Your task to perform on an android device: check data usage Image 0: 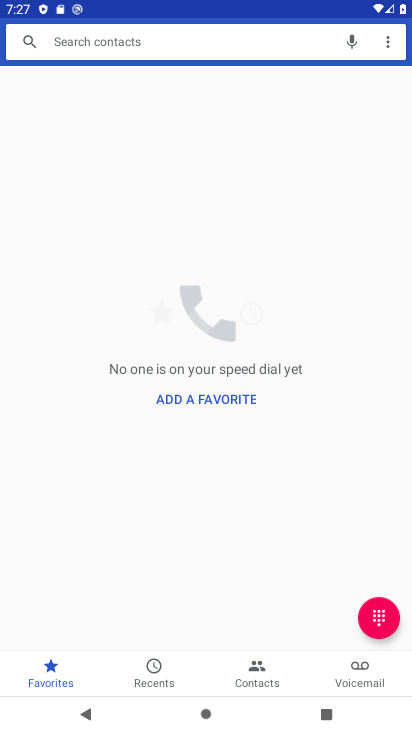
Step 0: press home button
Your task to perform on an android device: check data usage Image 1: 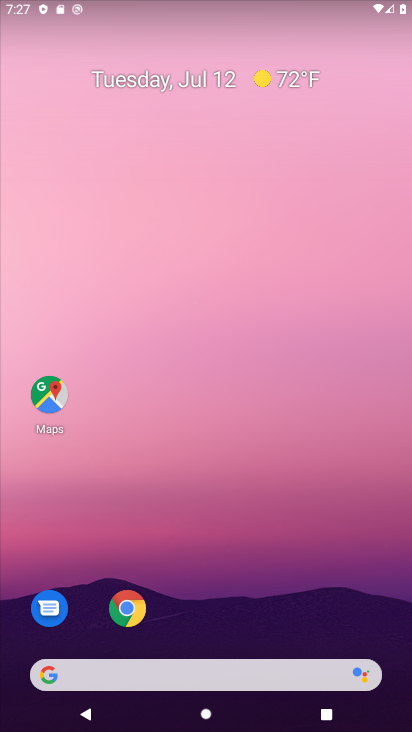
Step 1: drag from (374, 607) to (372, 100)
Your task to perform on an android device: check data usage Image 2: 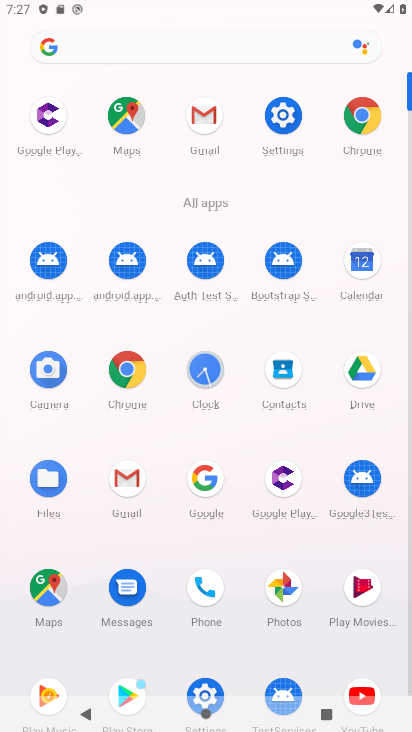
Step 2: click (283, 112)
Your task to perform on an android device: check data usage Image 3: 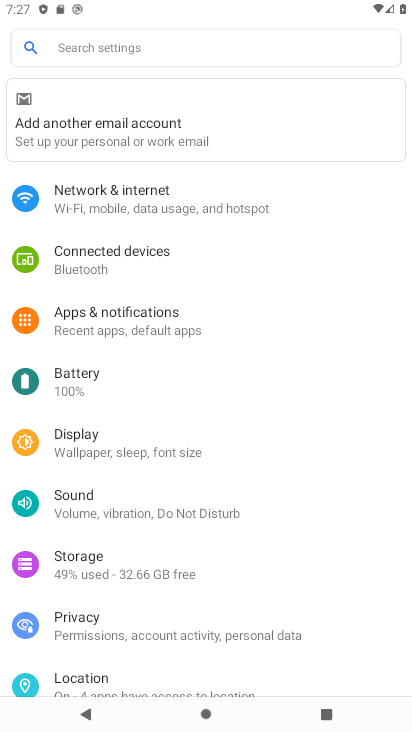
Step 3: drag from (364, 441) to (361, 371)
Your task to perform on an android device: check data usage Image 4: 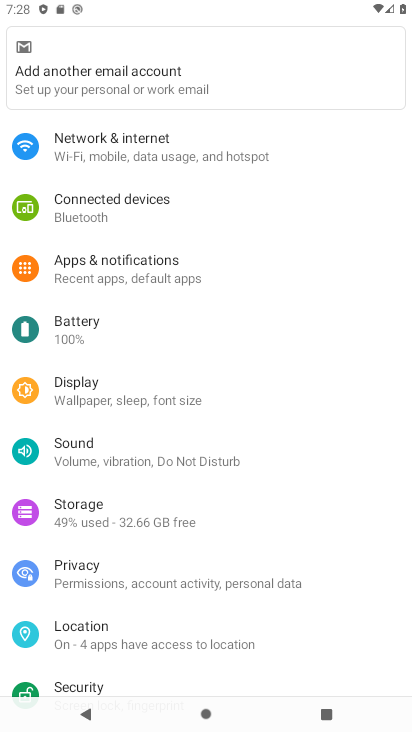
Step 4: drag from (349, 446) to (353, 354)
Your task to perform on an android device: check data usage Image 5: 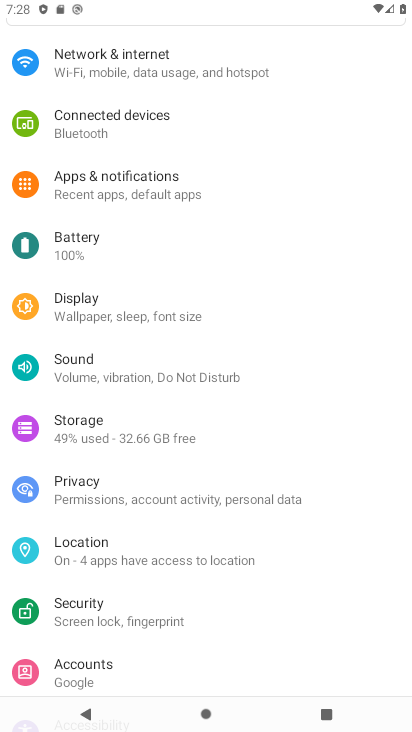
Step 5: drag from (353, 487) to (340, 370)
Your task to perform on an android device: check data usage Image 6: 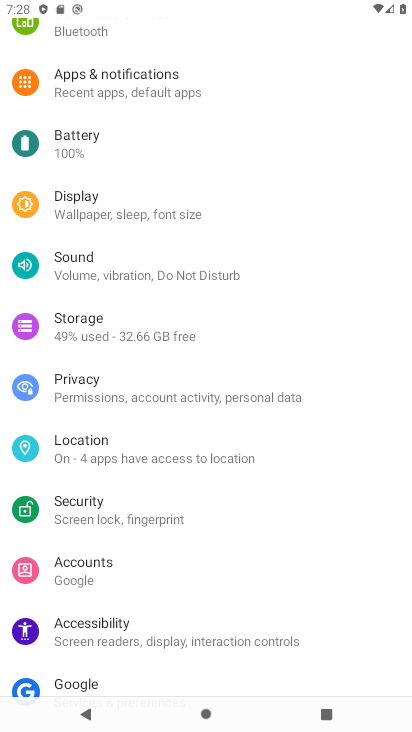
Step 6: drag from (338, 510) to (344, 352)
Your task to perform on an android device: check data usage Image 7: 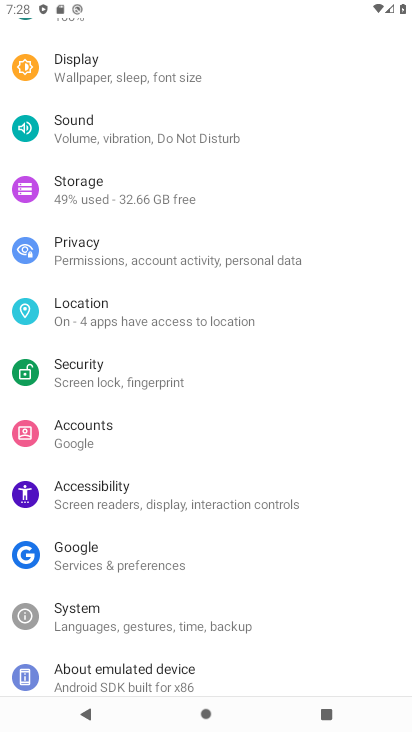
Step 7: drag from (348, 564) to (343, 409)
Your task to perform on an android device: check data usage Image 8: 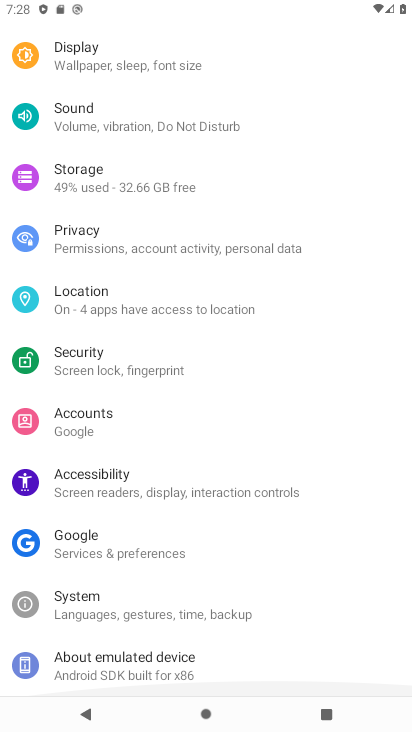
Step 8: drag from (336, 347) to (350, 458)
Your task to perform on an android device: check data usage Image 9: 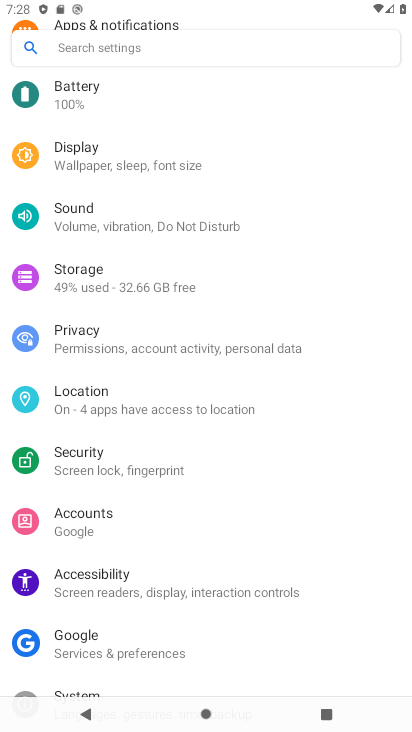
Step 9: drag from (350, 349) to (355, 433)
Your task to perform on an android device: check data usage Image 10: 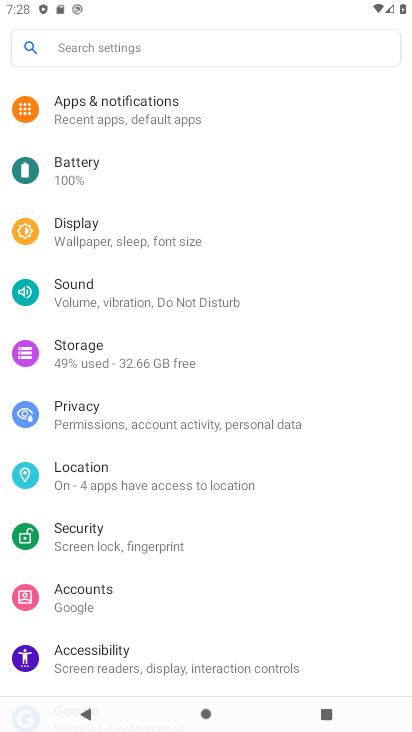
Step 10: drag from (358, 308) to (362, 412)
Your task to perform on an android device: check data usage Image 11: 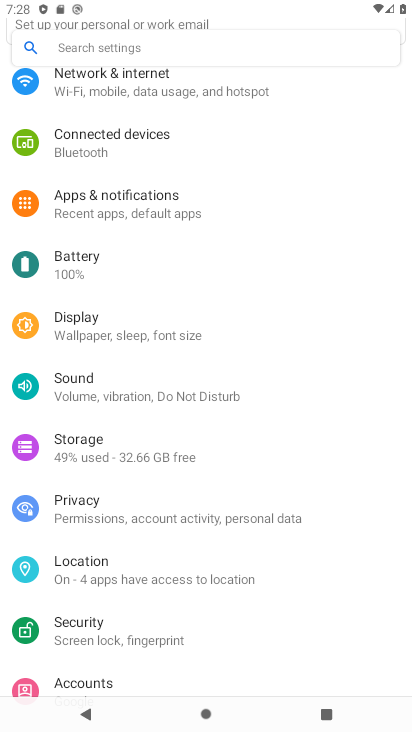
Step 11: drag from (355, 313) to (353, 429)
Your task to perform on an android device: check data usage Image 12: 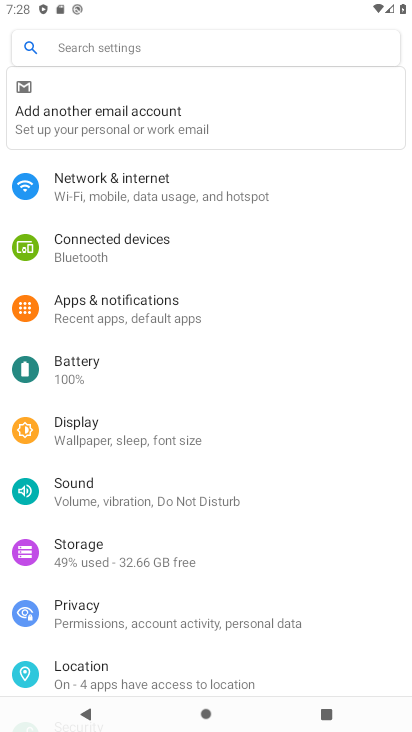
Step 12: drag from (335, 314) to (346, 421)
Your task to perform on an android device: check data usage Image 13: 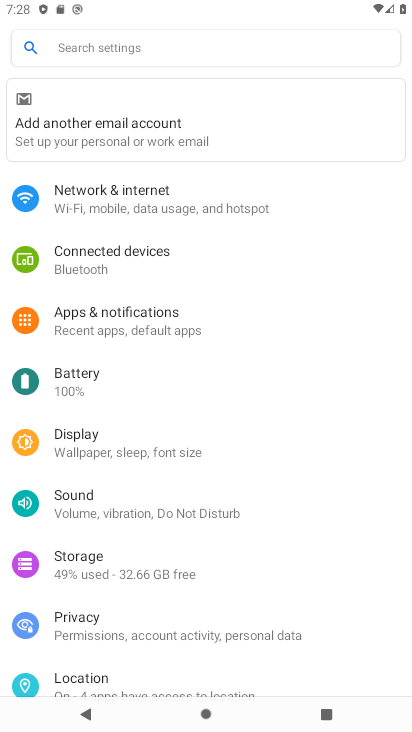
Step 13: click (243, 211)
Your task to perform on an android device: check data usage Image 14: 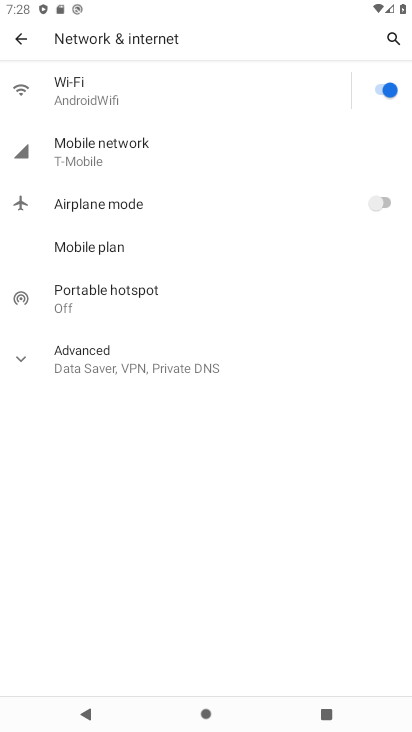
Step 14: click (136, 156)
Your task to perform on an android device: check data usage Image 15: 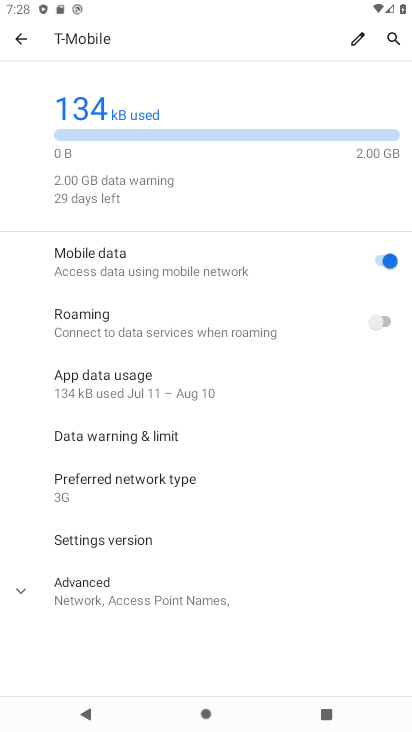
Step 15: click (182, 383)
Your task to perform on an android device: check data usage Image 16: 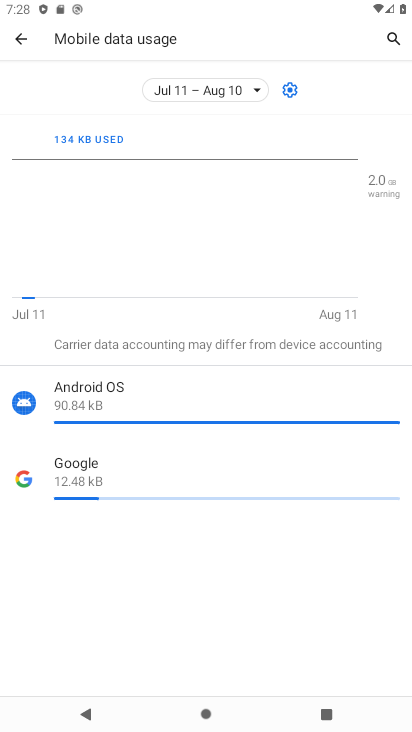
Step 16: task complete